Your task to perform on an android device: add a contact Image 0: 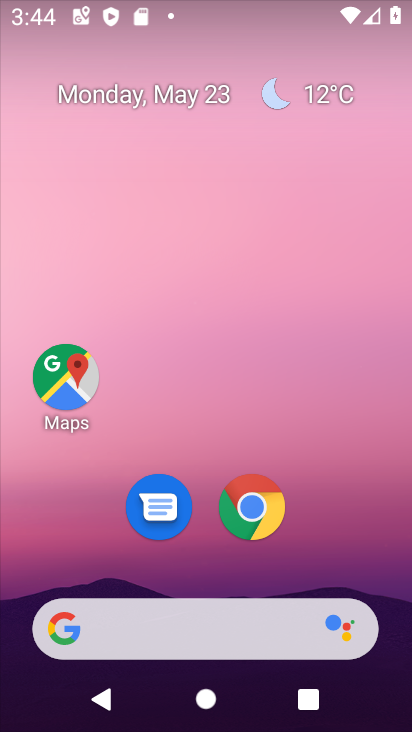
Step 0: drag from (225, 532) to (237, 115)
Your task to perform on an android device: add a contact Image 1: 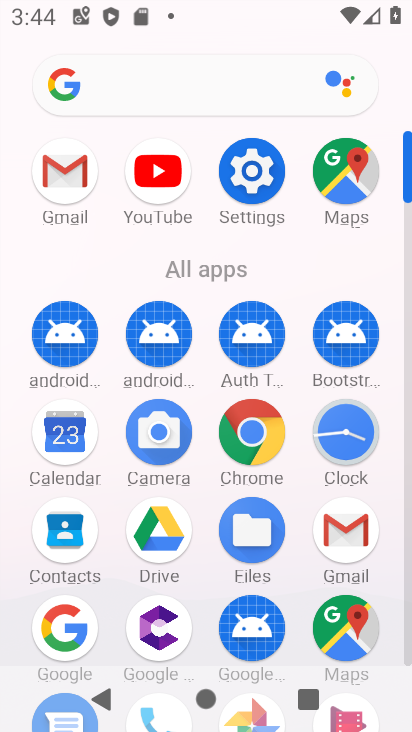
Step 1: click (51, 543)
Your task to perform on an android device: add a contact Image 2: 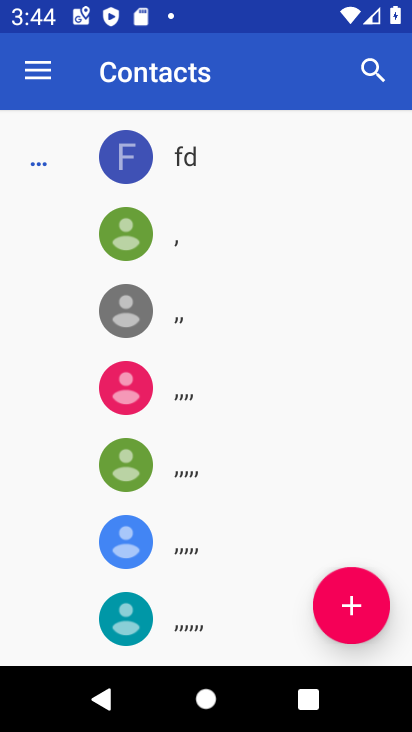
Step 2: click (380, 598)
Your task to perform on an android device: add a contact Image 3: 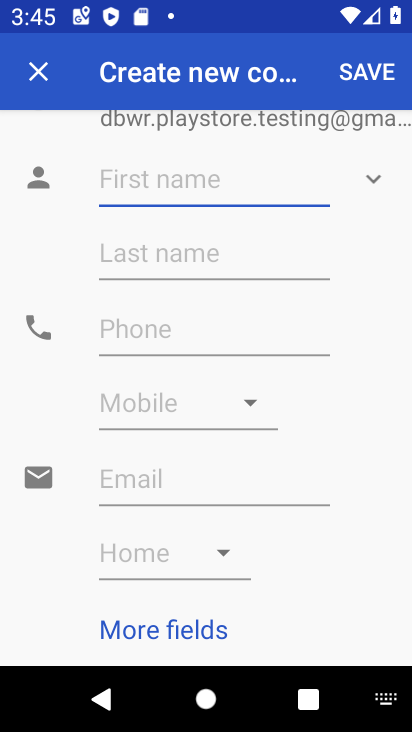
Step 3: type "kjhgf"
Your task to perform on an android device: add a contact Image 4: 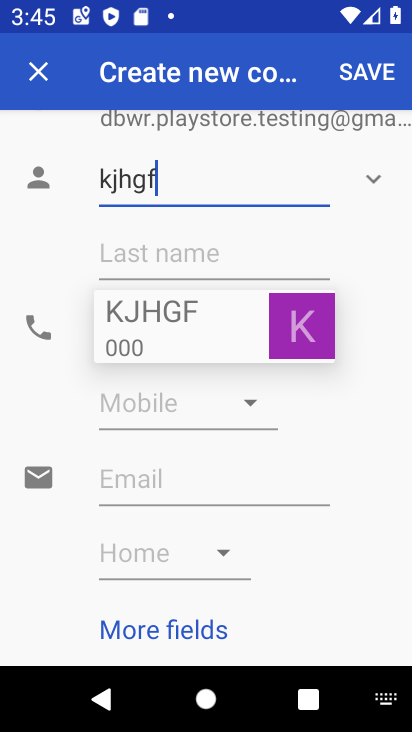
Step 4: click (203, 353)
Your task to perform on an android device: add a contact Image 5: 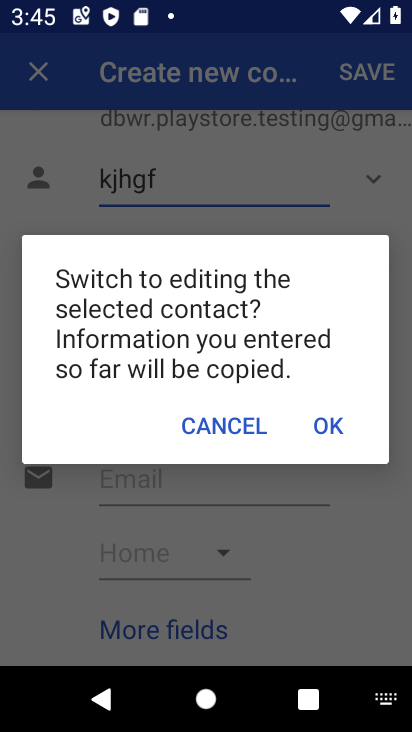
Step 5: click (227, 422)
Your task to perform on an android device: add a contact Image 6: 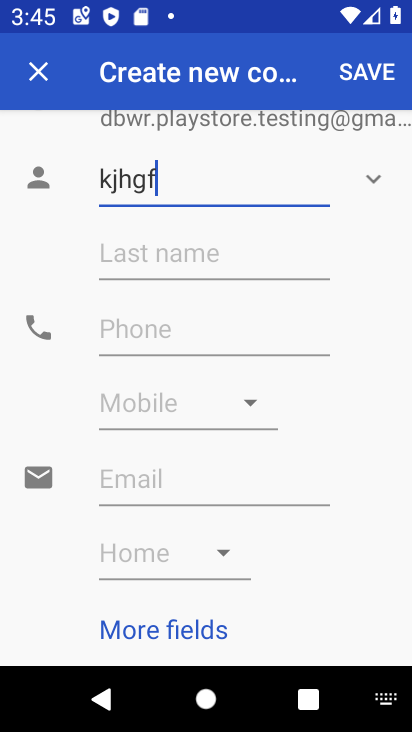
Step 6: type "zxcvbnm,"
Your task to perform on an android device: add a contact Image 7: 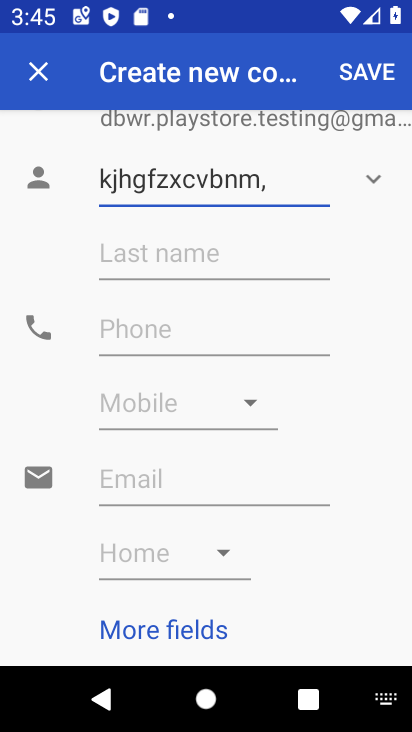
Step 7: click (173, 335)
Your task to perform on an android device: add a contact Image 8: 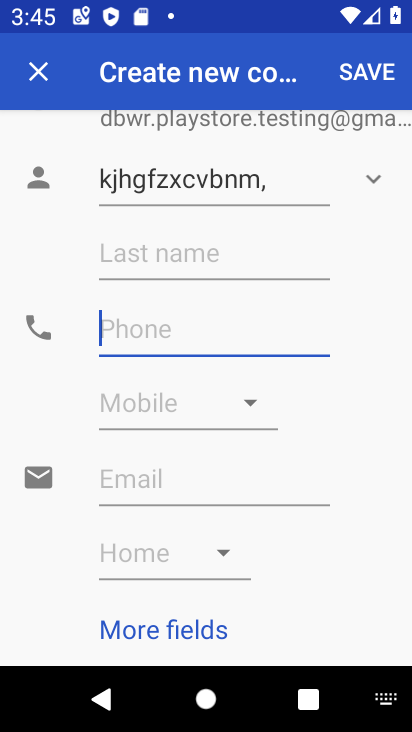
Step 8: type "98765432"
Your task to perform on an android device: add a contact Image 9: 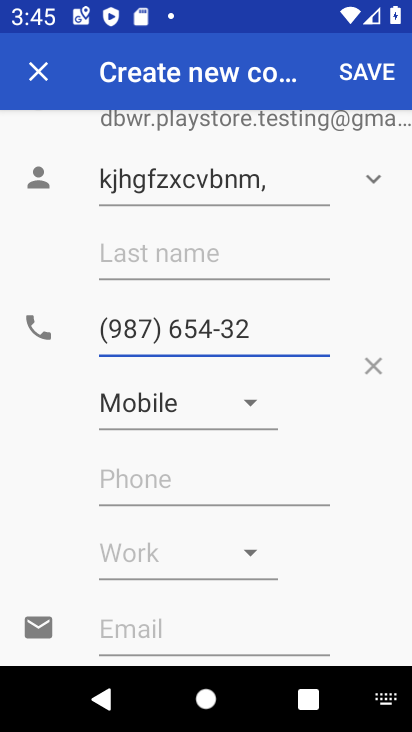
Step 9: click (350, 74)
Your task to perform on an android device: add a contact Image 10: 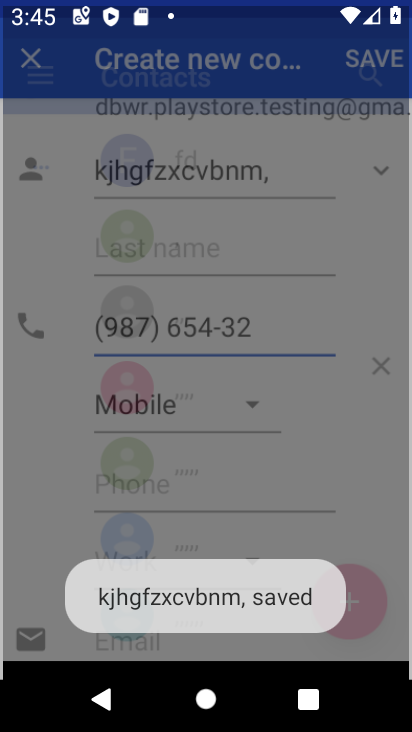
Step 10: task complete